Your task to perform on an android device: turn off priority inbox in the gmail app Image 0: 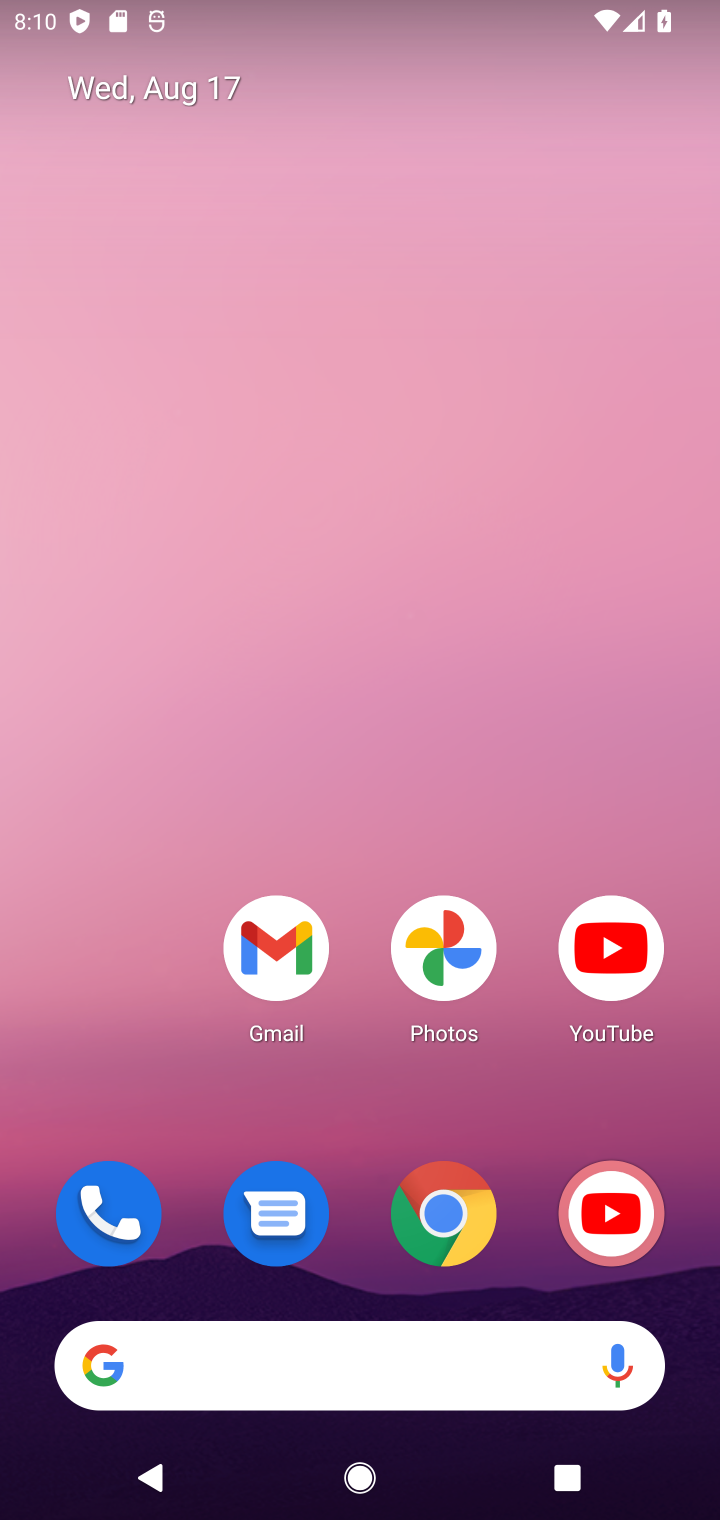
Step 0: click (286, 991)
Your task to perform on an android device: turn off priority inbox in the gmail app Image 1: 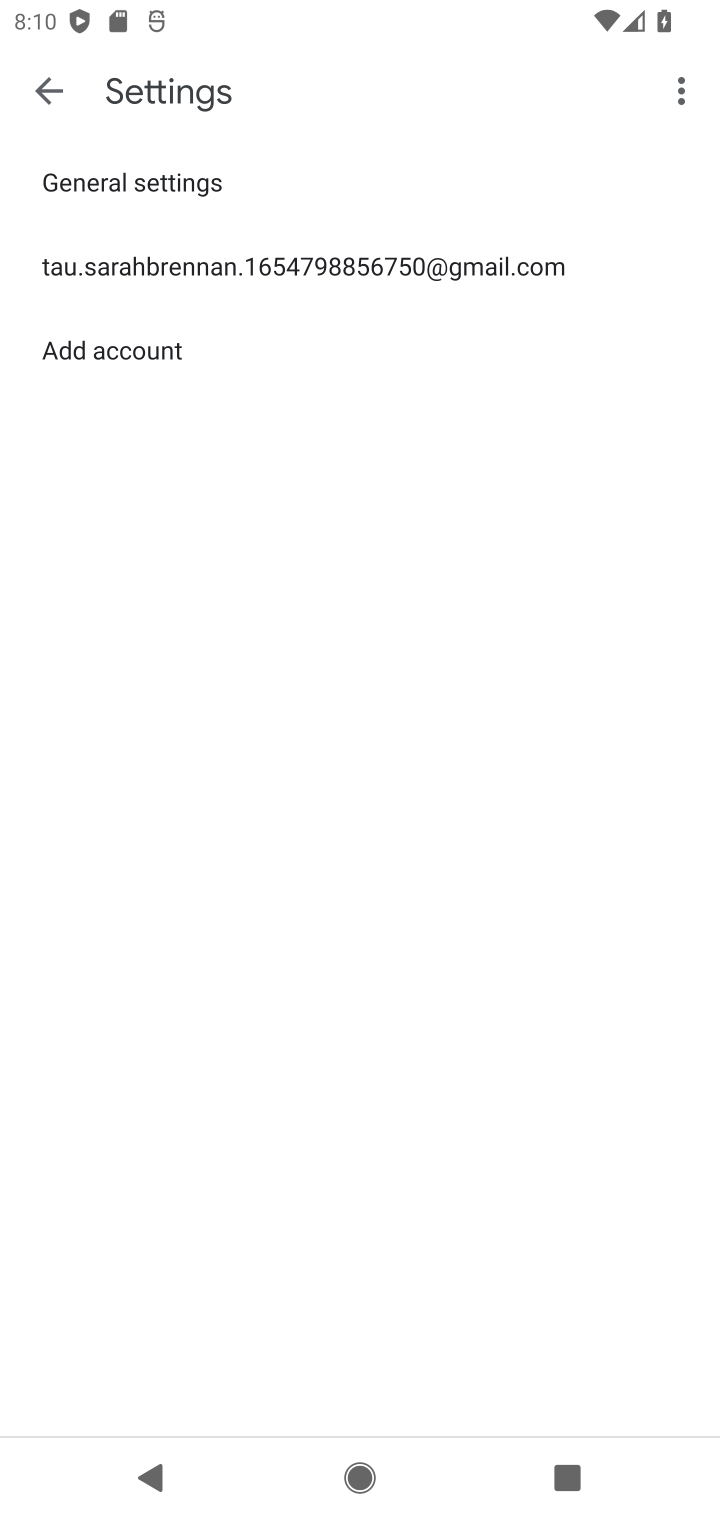
Step 1: click (48, 109)
Your task to perform on an android device: turn off priority inbox in the gmail app Image 2: 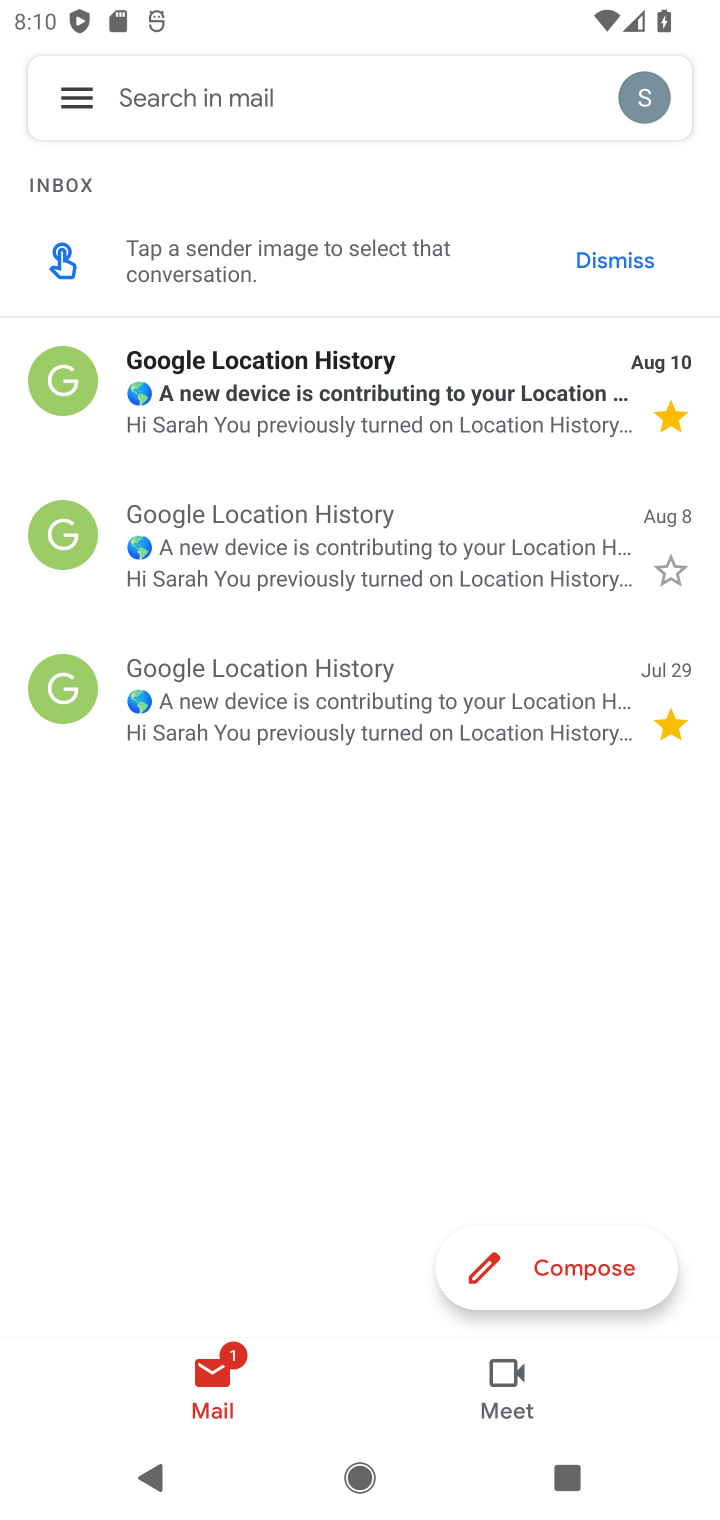
Step 2: click (71, 105)
Your task to perform on an android device: turn off priority inbox in the gmail app Image 3: 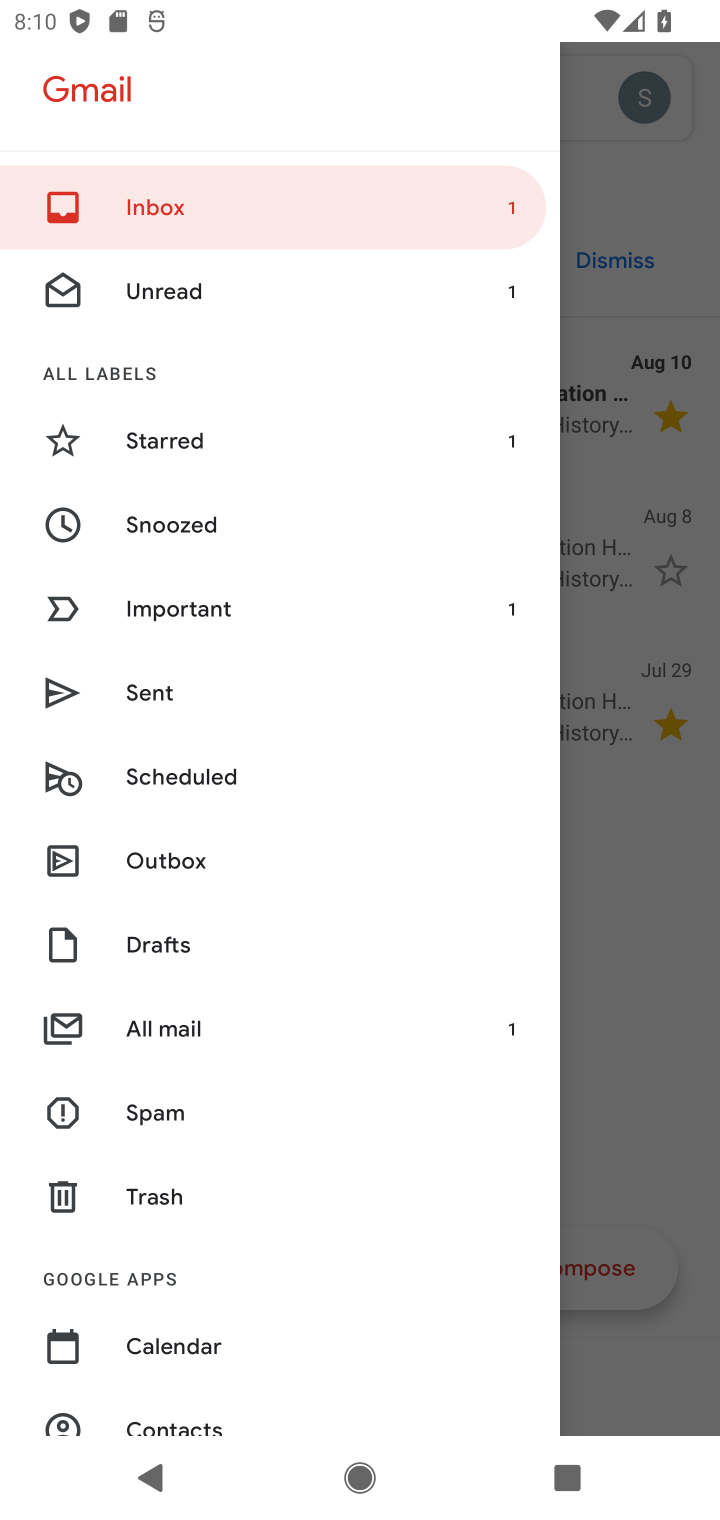
Step 3: drag from (116, 1292) to (136, 610)
Your task to perform on an android device: turn off priority inbox in the gmail app Image 4: 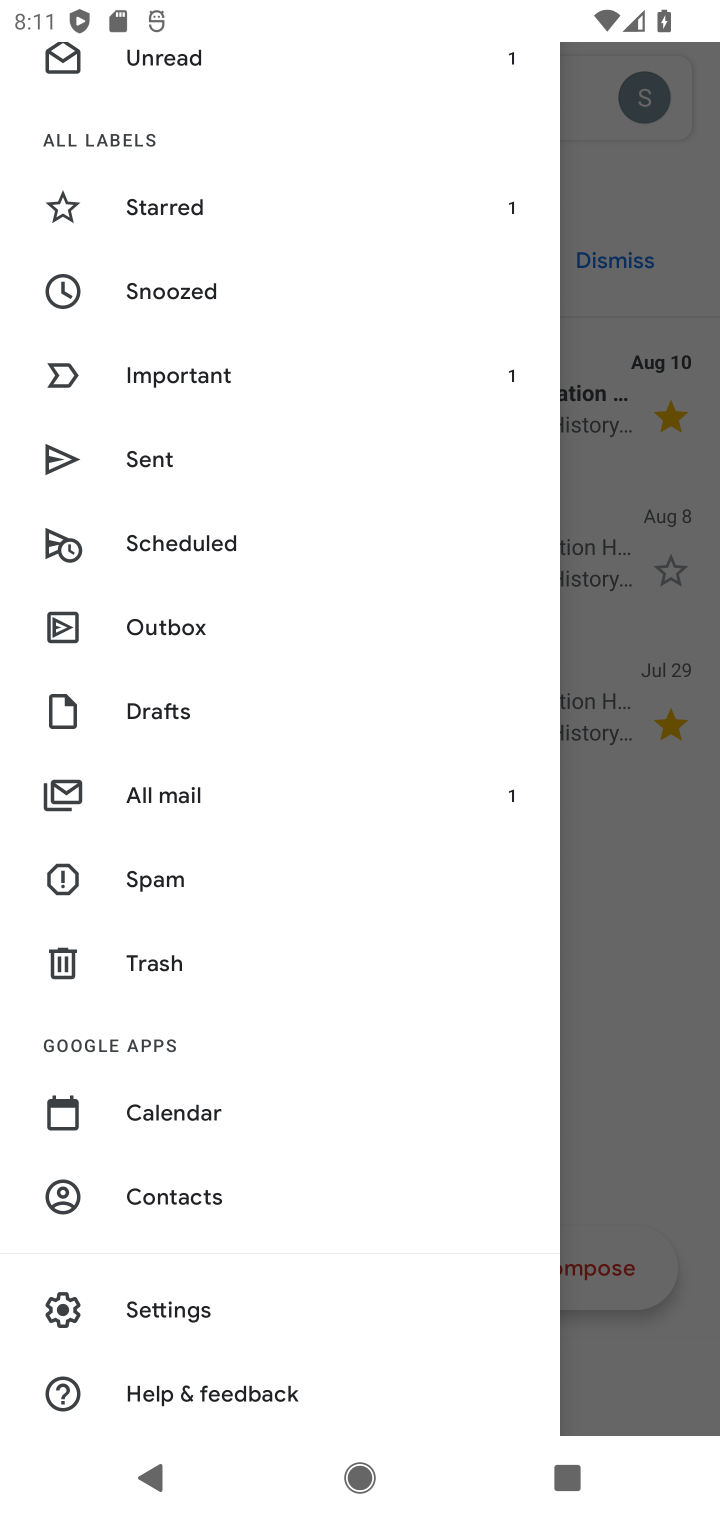
Step 4: click (194, 1289)
Your task to perform on an android device: turn off priority inbox in the gmail app Image 5: 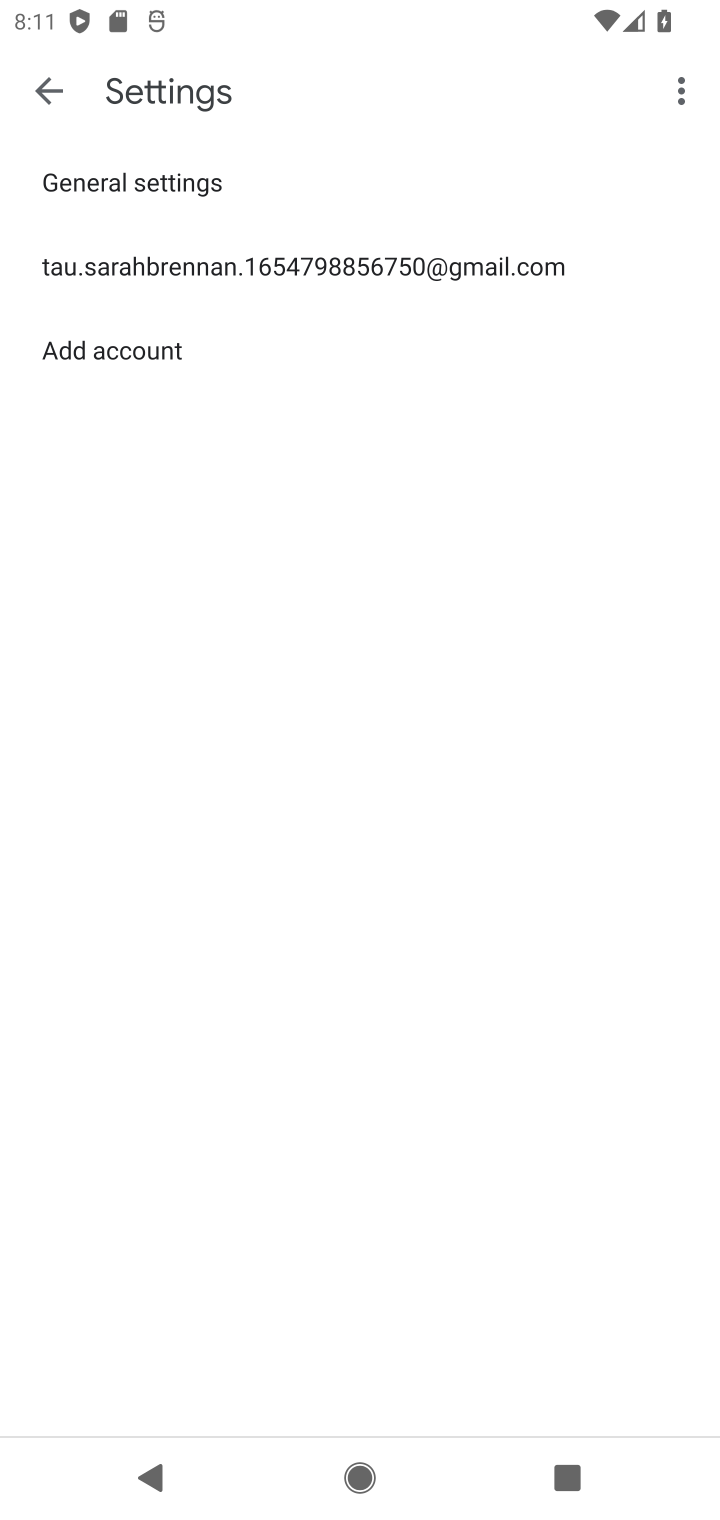
Step 5: click (229, 285)
Your task to perform on an android device: turn off priority inbox in the gmail app Image 6: 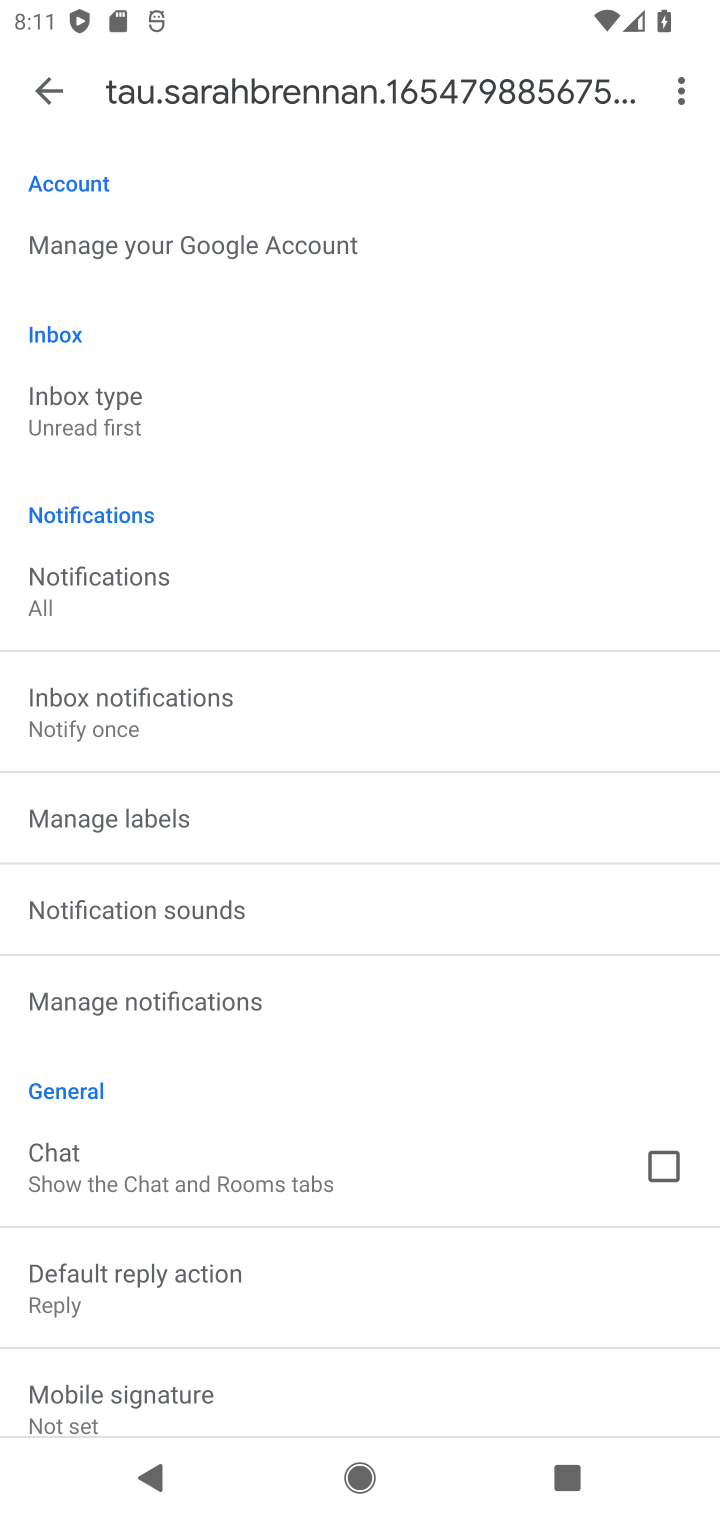
Step 6: click (248, 416)
Your task to perform on an android device: turn off priority inbox in the gmail app Image 7: 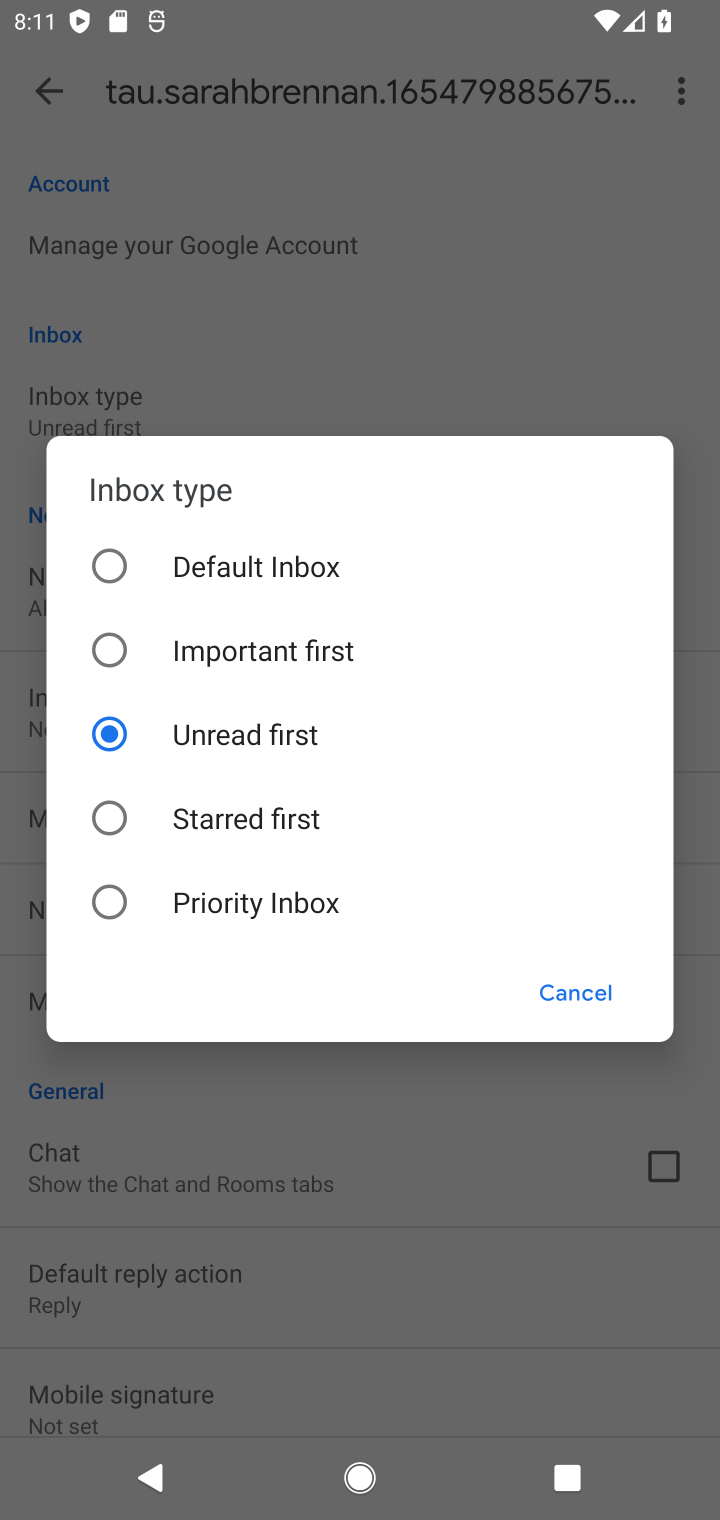
Step 7: click (218, 905)
Your task to perform on an android device: turn off priority inbox in the gmail app Image 8: 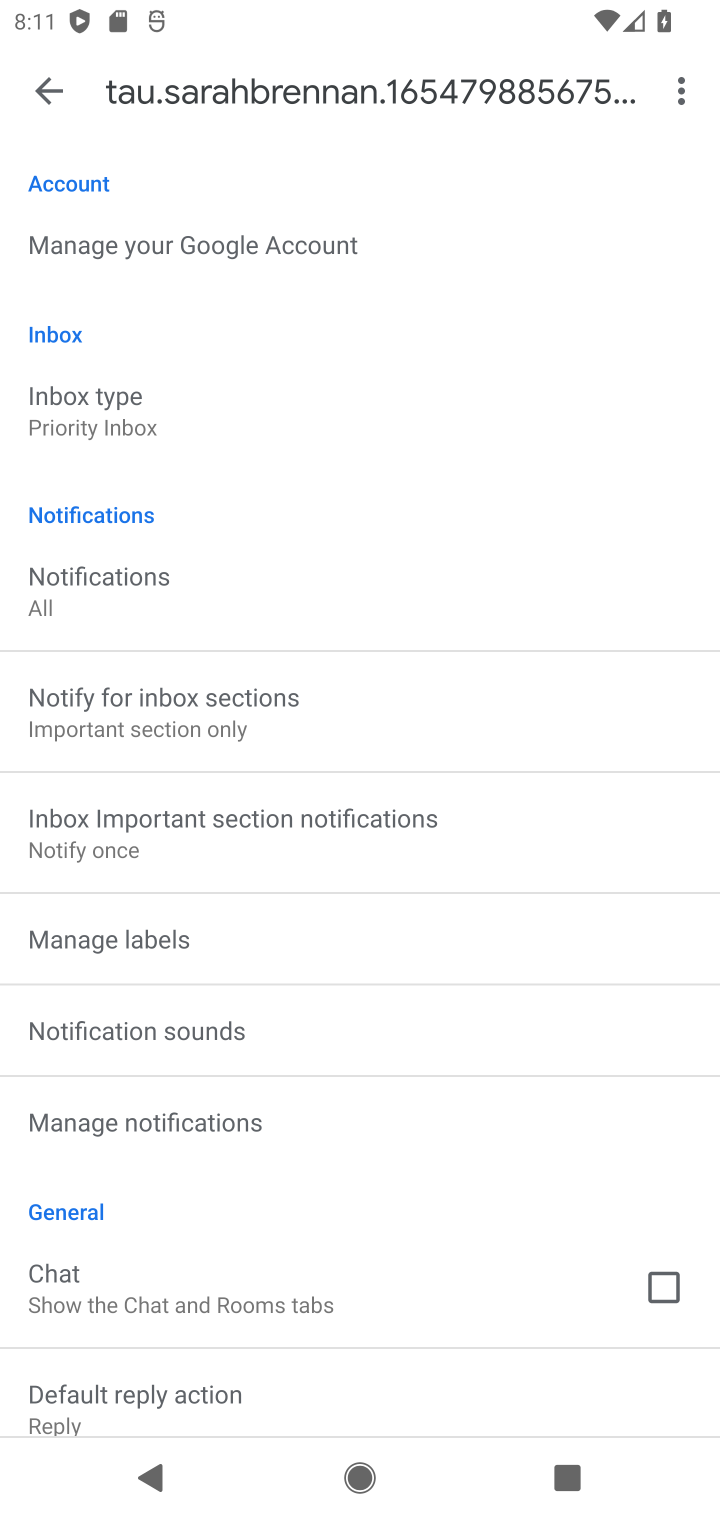
Step 8: task complete